Your task to perform on an android device: Open the web browser Image 0: 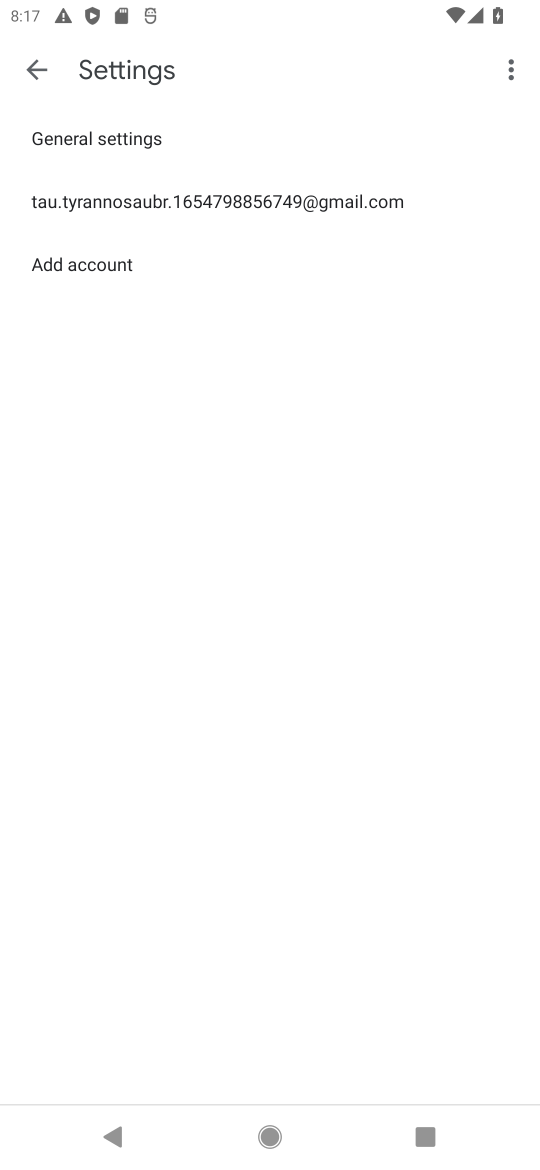
Step 0: press home button
Your task to perform on an android device: Open the web browser Image 1: 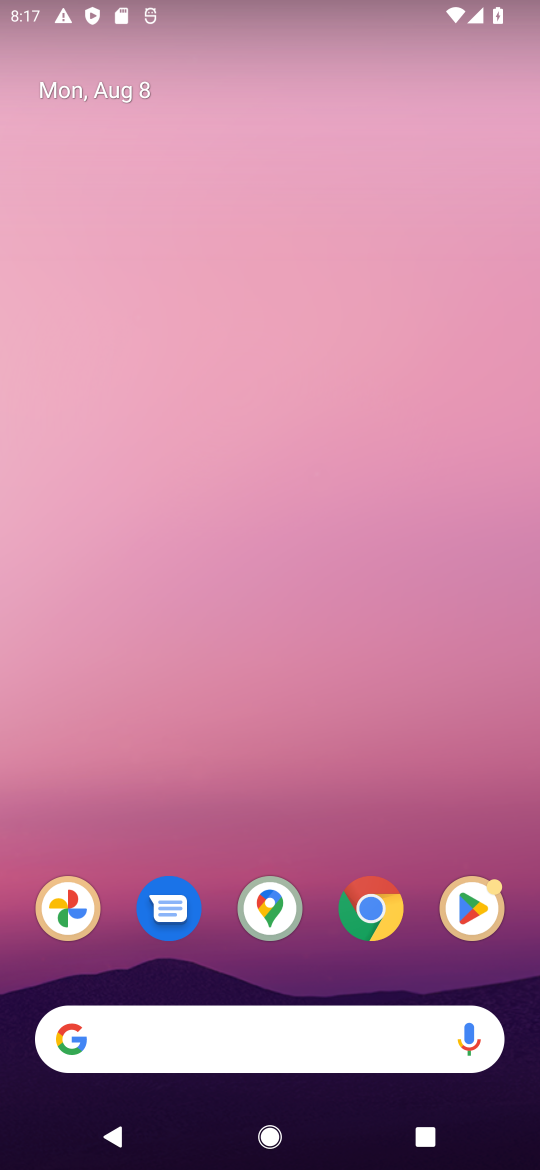
Step 1: click (228, 1063)
Your task to perform on an android device: Open the web browser Image 2: 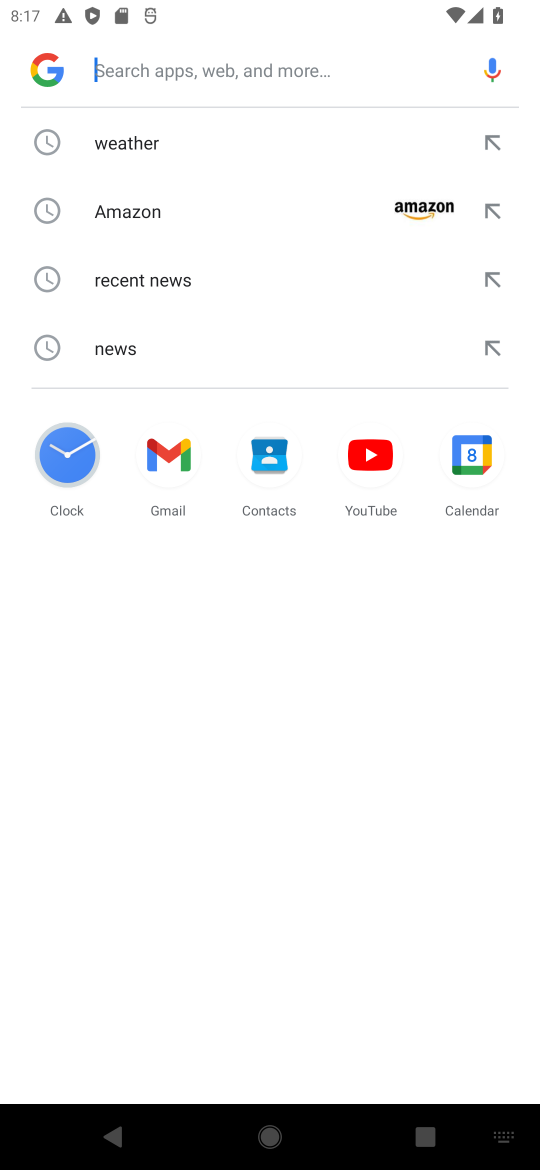
Step 2: task complete